Your task to perform on an android device: turn off notifications in google photos Image 0: 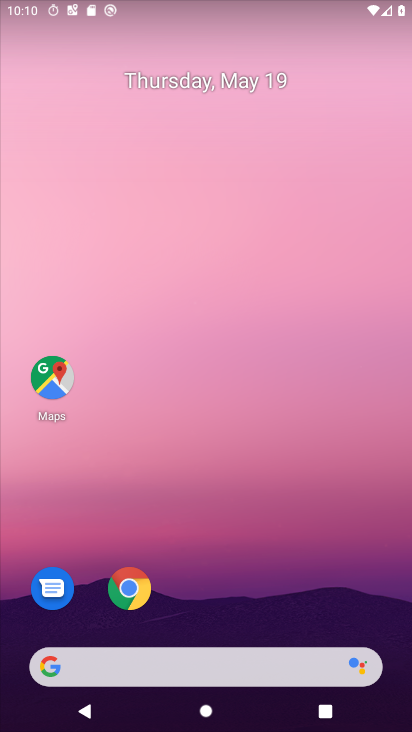
Step 0: press home button
Your task to perform on an android device: turn off notifications in google photos Image 1: 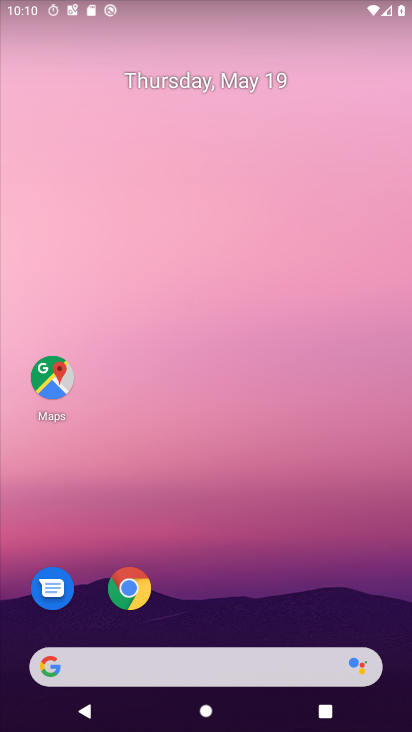
Step 1: drag from (136, 661) to (315, 122)
Your task to perform on an android device: turn off notifications in google photos Image 2: 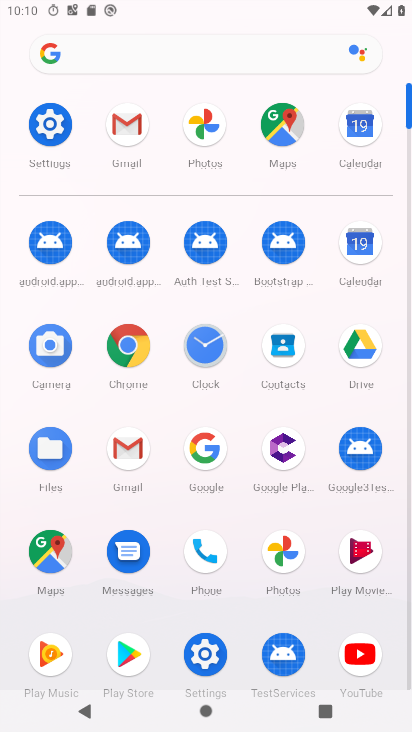
Step 2: click (285, 557)
Your task to perform on an android device: turn off notifications in google photos Image 3: 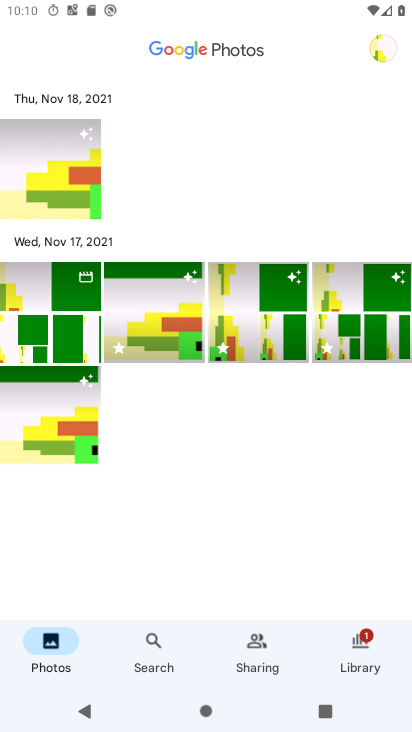
Step 3: click (380, 47)
Your task to perform on an android device: turn off notifications in google photos Image 4: 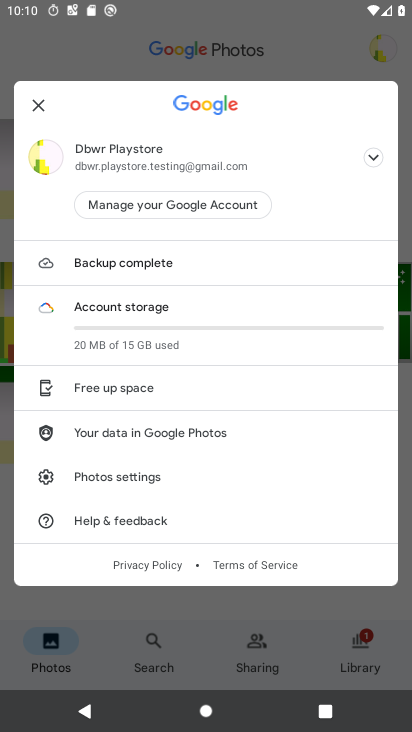
Step 4: click (142, 482)
Your task to perform on an android device: turn off notifications in google photos Image 5: 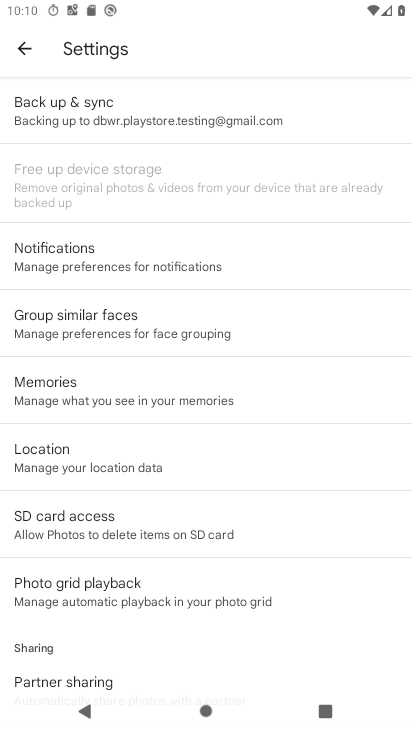
Step 5: click (126, 265)
Your task to perform on an android device: turn off notifications in google photos Image 6: 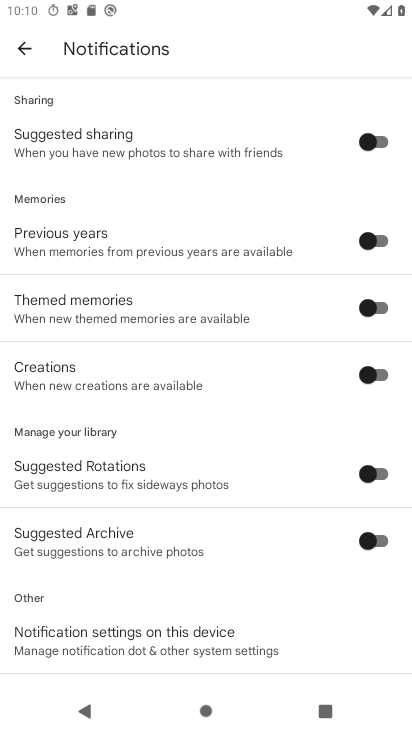
Step 6: click (146, 650)
Your task to perform on an android device: turn off notifications in google photos Image 7: 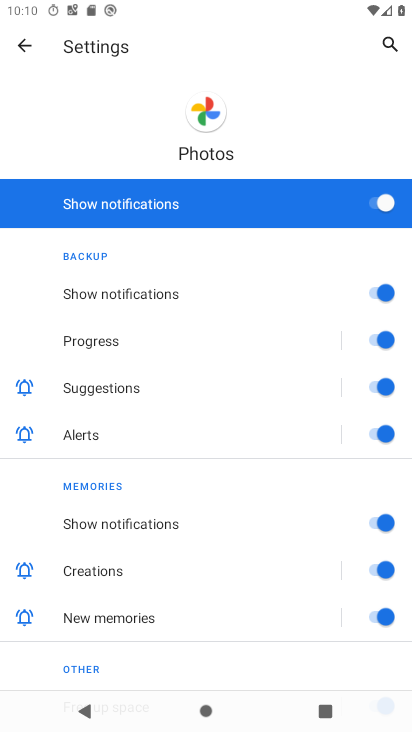
Step 7: click (376, 205)
Your task to perform on an android device: turn off notifications in google photos Image 8: 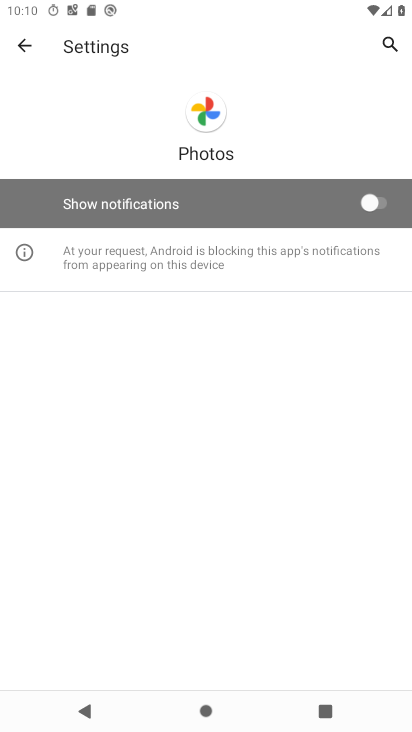
Step 8: task complete